Your task to perform on an android device: Open Yahoo.com Image 0: 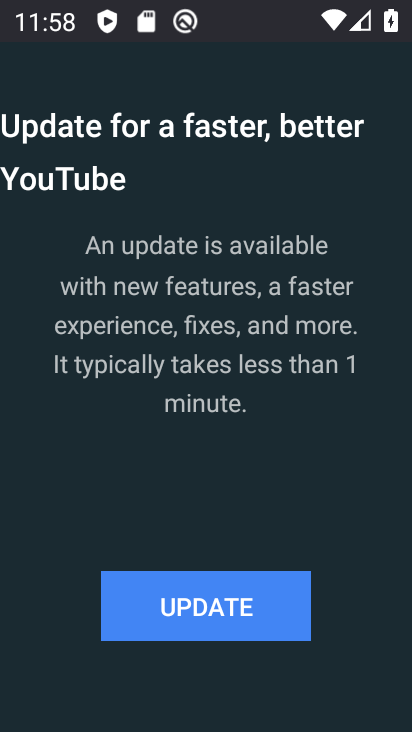
Step 0: press back button
Your task to perform on an android device: Open Yahoo.com Image 1: 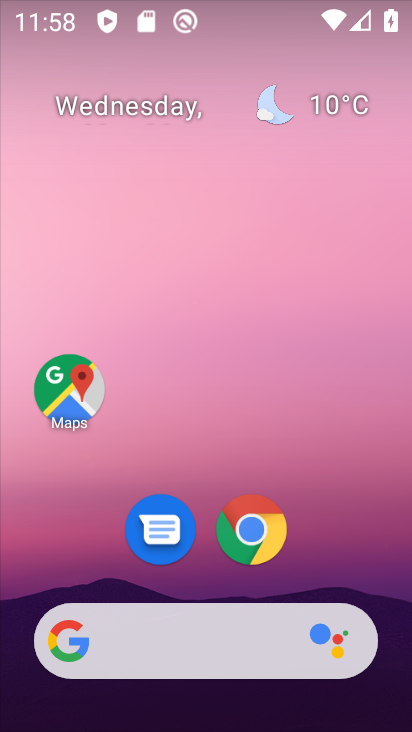
Step 1: click (246, 531)
Your task to perform on an android device: Open Yahoo.com Image 2: 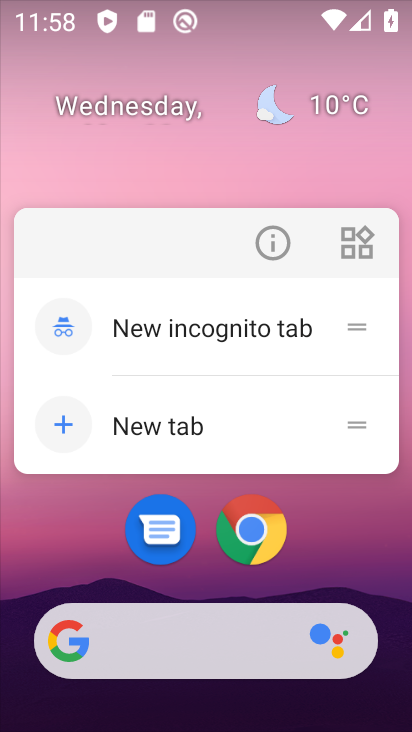
Step 2: click (251, 528)
Your task to perform on an android device: Open Yahoo.com Image 3: 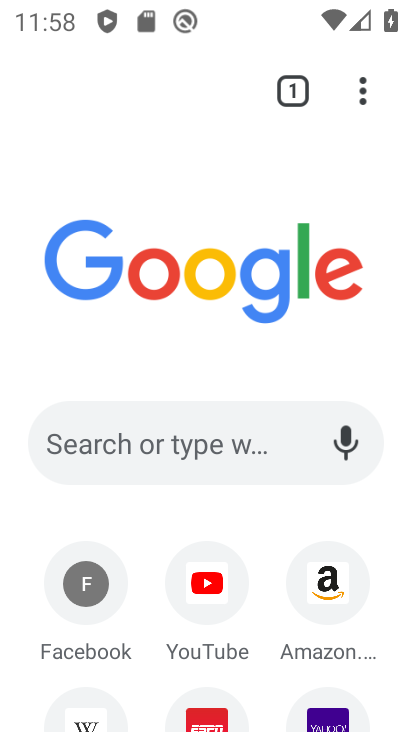
Step 3: click (341, 707)
Your task to perform on an android device: Open Yahoo.com Image 4: 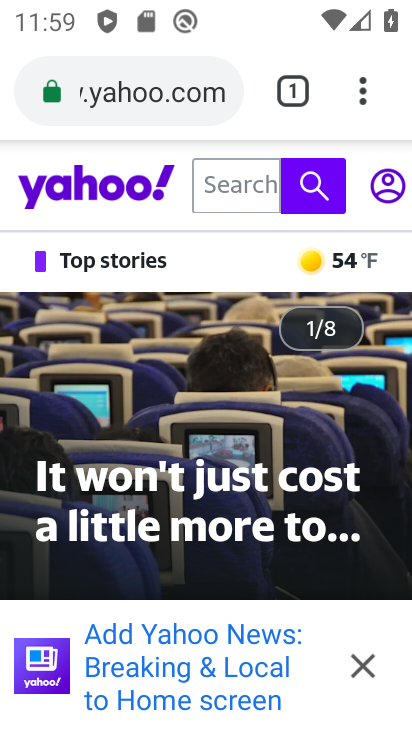
Step 4: task complete